Your task to perform on an android device: Is it going to rain tomorrow? Image 0: 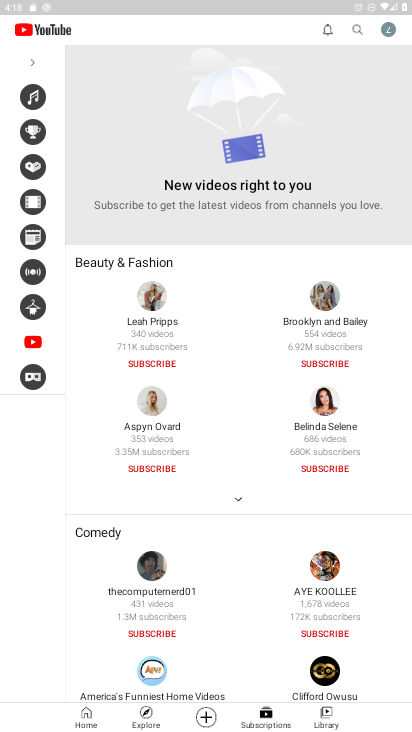
Step 0: press back button
Your task to perform on an android device: Is it going to rain tomorrow? Image 1: 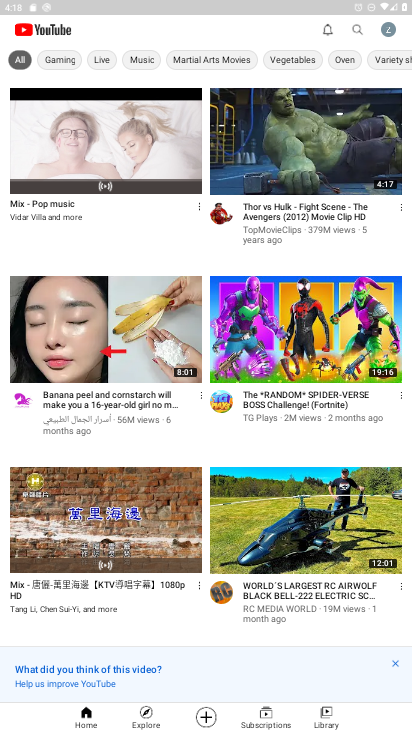
Step 1: press back button
Your task to perform on an android device: Is it going to rain tomorrow? Image 2: 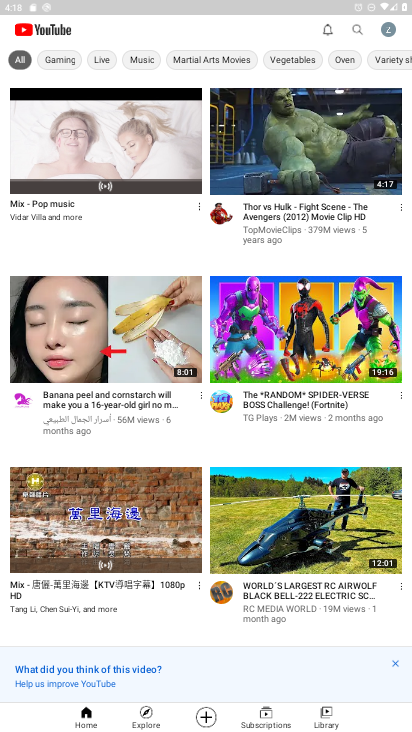
Step 2: press back button
Your task to perform on an android device: Is it going to rain tomorrow? Image 3: 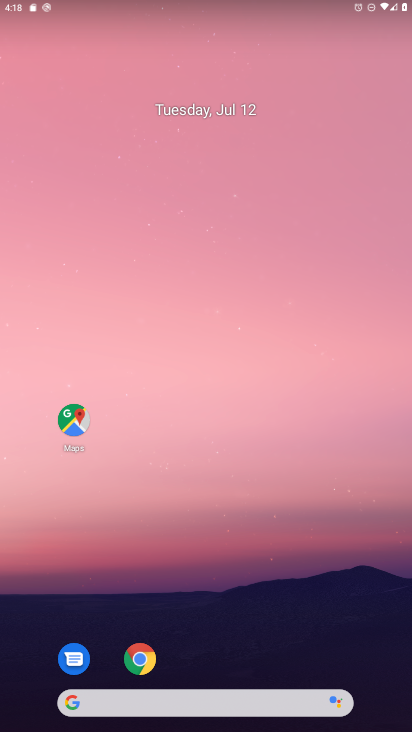
Step 3: drag from (196, 460) to (244, 28)
Your task to perform on an android device: Is it going to rain tomorrow? Image 4: 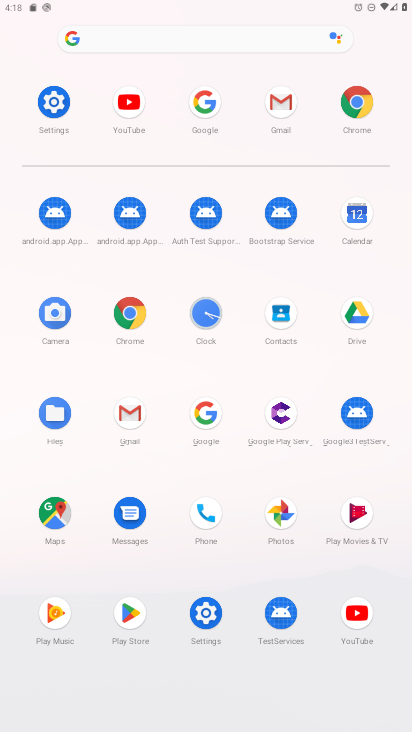
Step 4: click (197, 104)
Your task to perform on an android device: Is it going to rain tomorrow? Image 5: 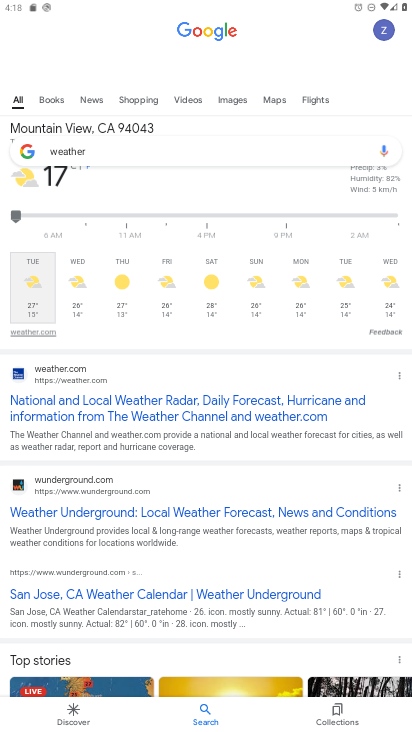
Step 5: press back button
Your task to perform on an android device: Is it going to rain tomorrow? Image 6: 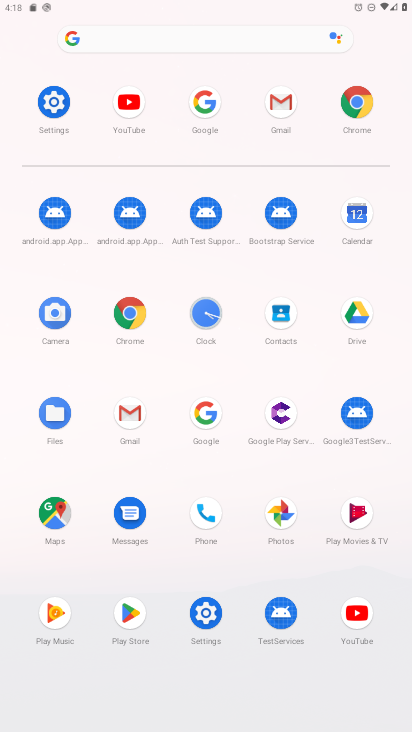
Step 6: click (202, 417)
Your task to perform on an android device: Is it going to rain tomorrow? Image 7: 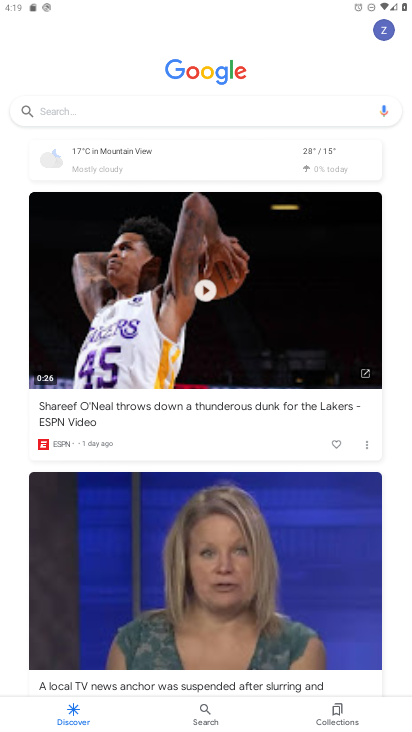
Step 7: click (83, 105)
Your task to perform on an android device: Is it going to rain tomorrow? Image 8: 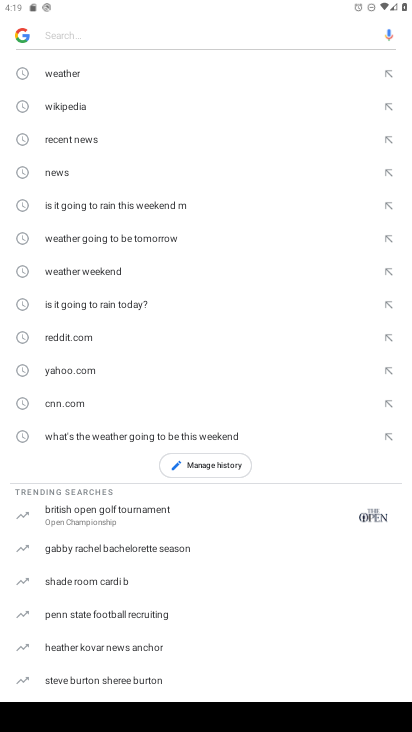
Step 8: click (58, 70)
Your task to perform on an android device: Is it going to rain tomorrow? Image 9: 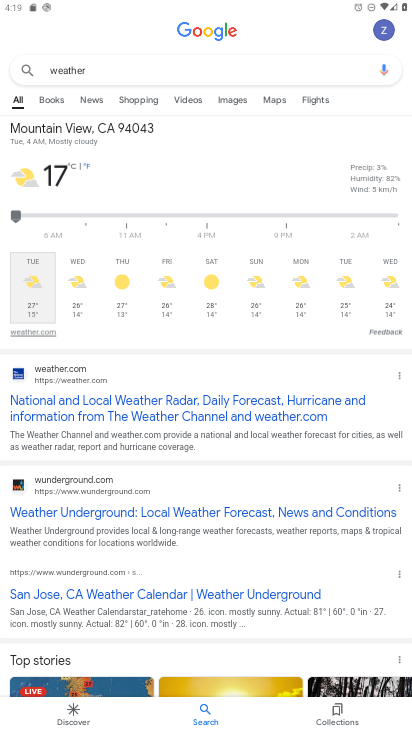
Step 9: click (47, 336)
Your task to perform on an android device: Is it going to rain tomorrow? Image 10: 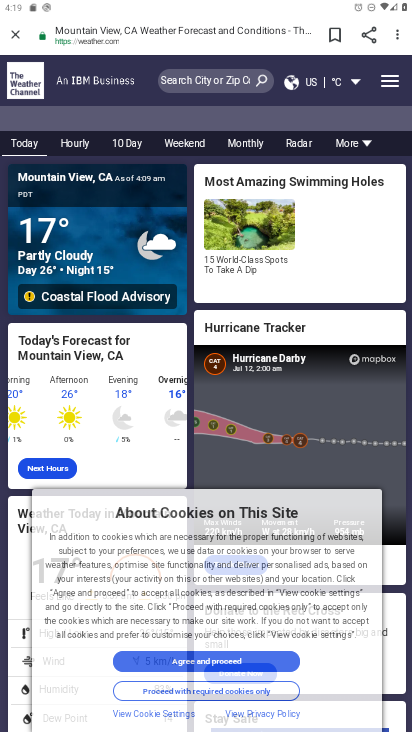
Step 10: click (123, 141)
Your task to perform on an android device: Is it going to rain tomorrow? Image 11: 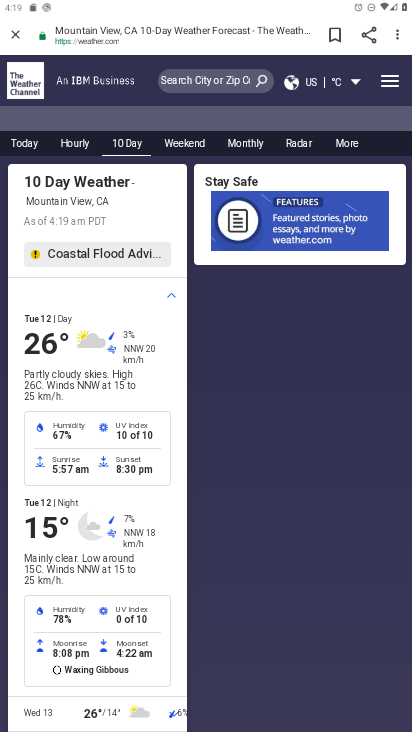
Step 11: task complete